Your task to perform on an android device: uninstall "Instagram" Image 0: 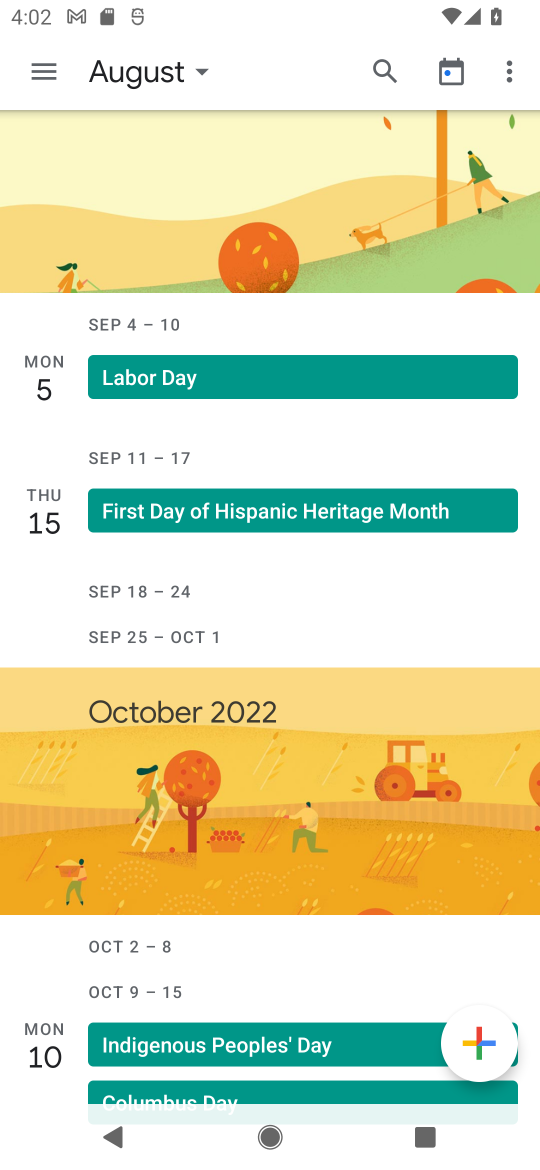
Step 0: press home button
Your task to perform on an android device: uninstall "Instagram" Image 1: 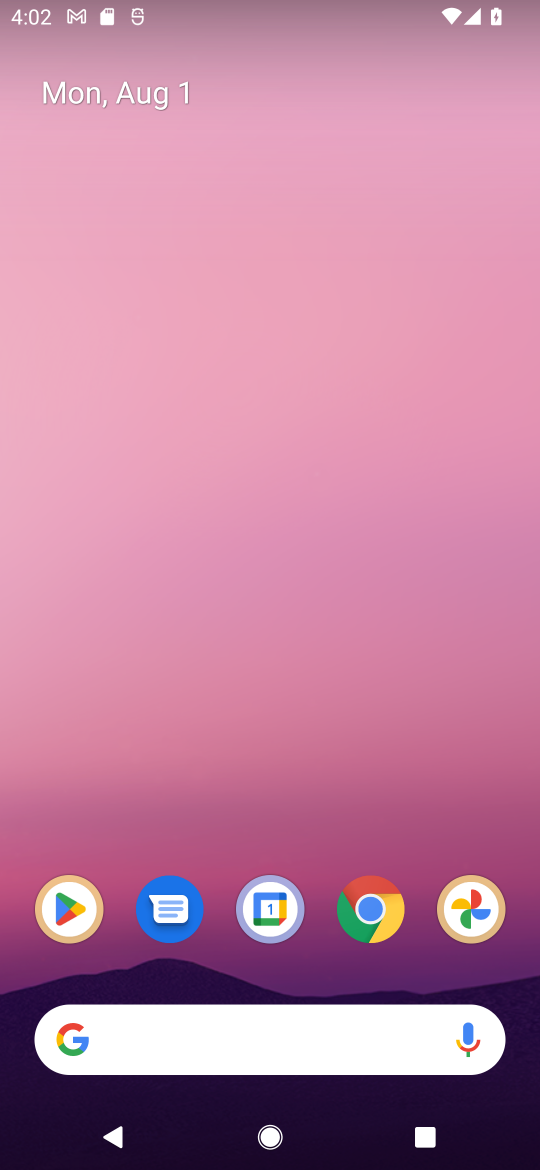
Step 1: click (77, 902)
Your task to perform on an android device: uninstall "Instagram" Image 2: 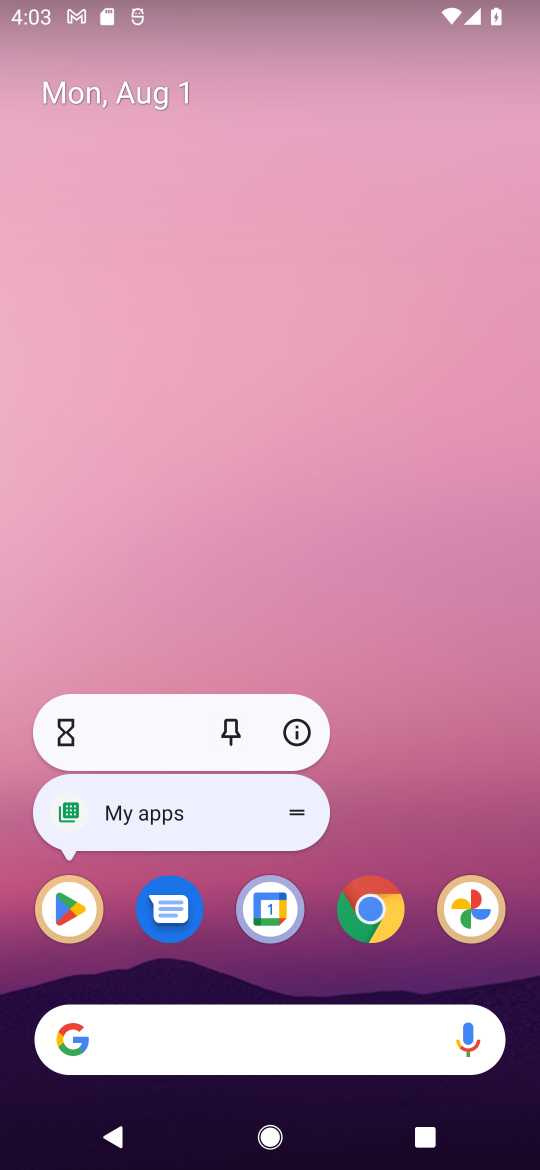
Step 2: click (77, 898)
Your task to perform on an android device: uninstall "Instagram" Image 3: 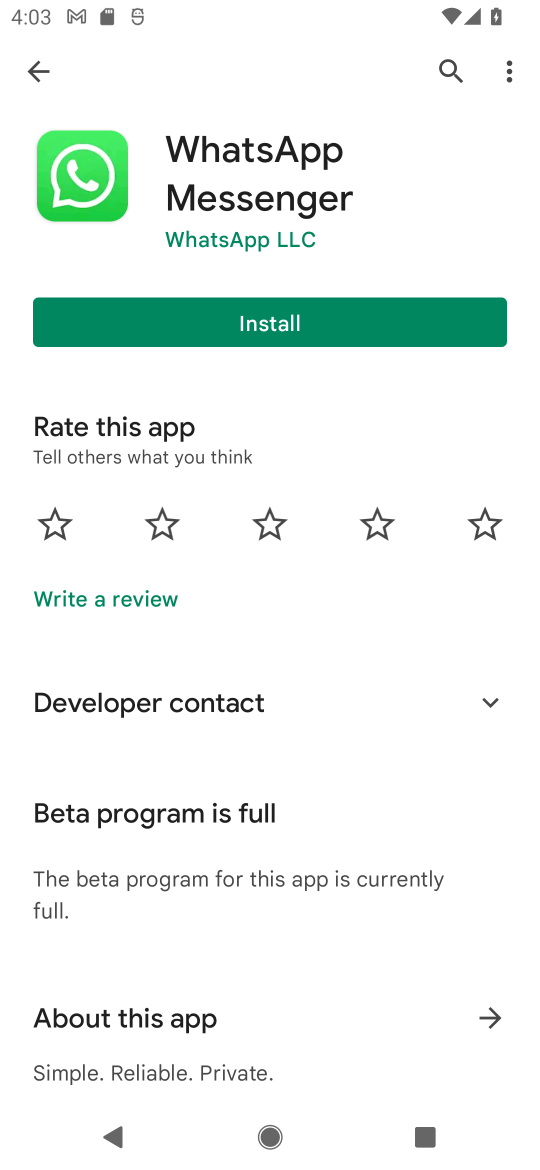
Step 3: click (37, 78)
Your task to perform on an android device: uninstall "Instagram" Image 4: 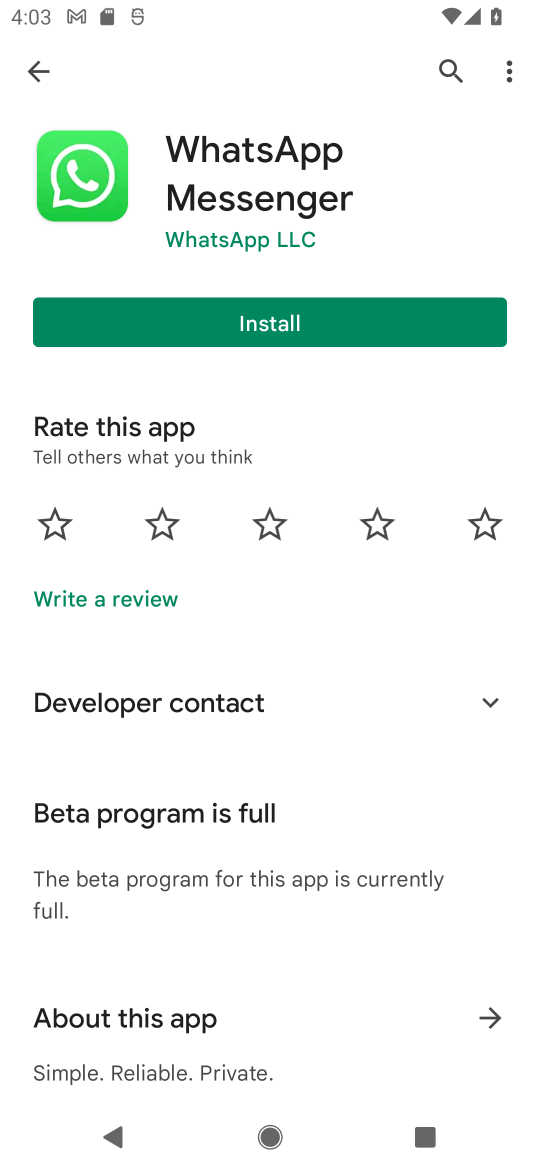
Step 4: click (44, 78)
Your task to perform on an android device: uninstall "Instagram" Image 5: 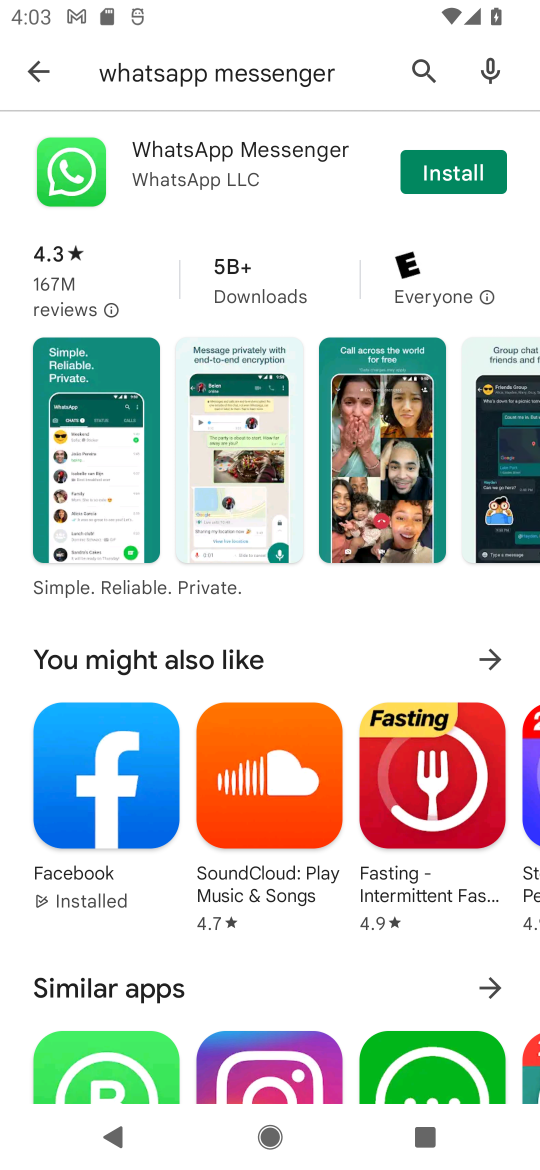
Step 5: click (238, 82)
Your task to perform on an android device: uninstall "Instagram" Image 6: 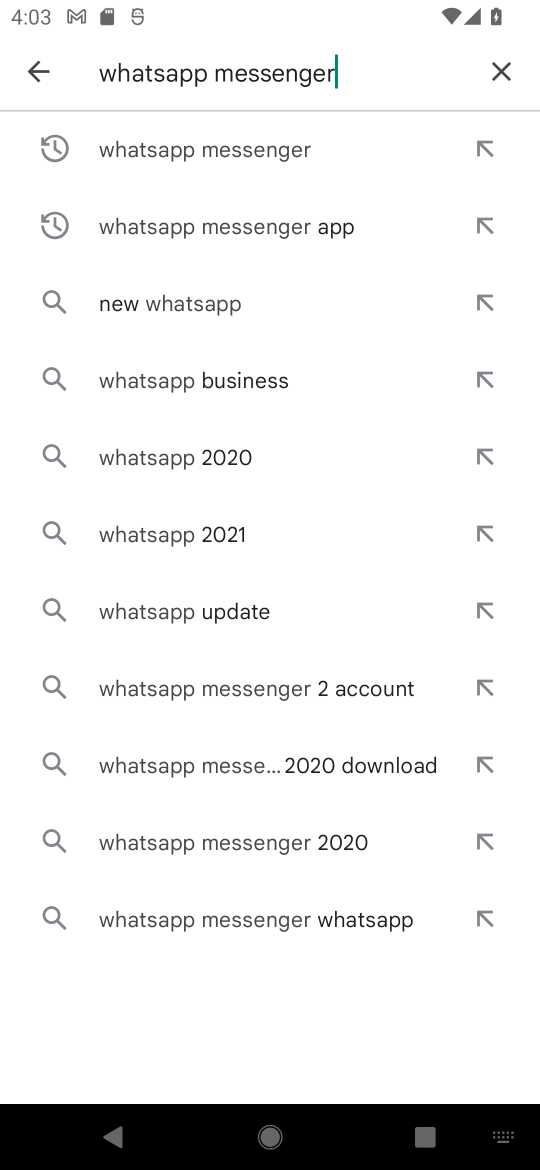
Step 6: click (495, 64)
Your task to perform on an android device: uninstall "Instagram" Image 7: 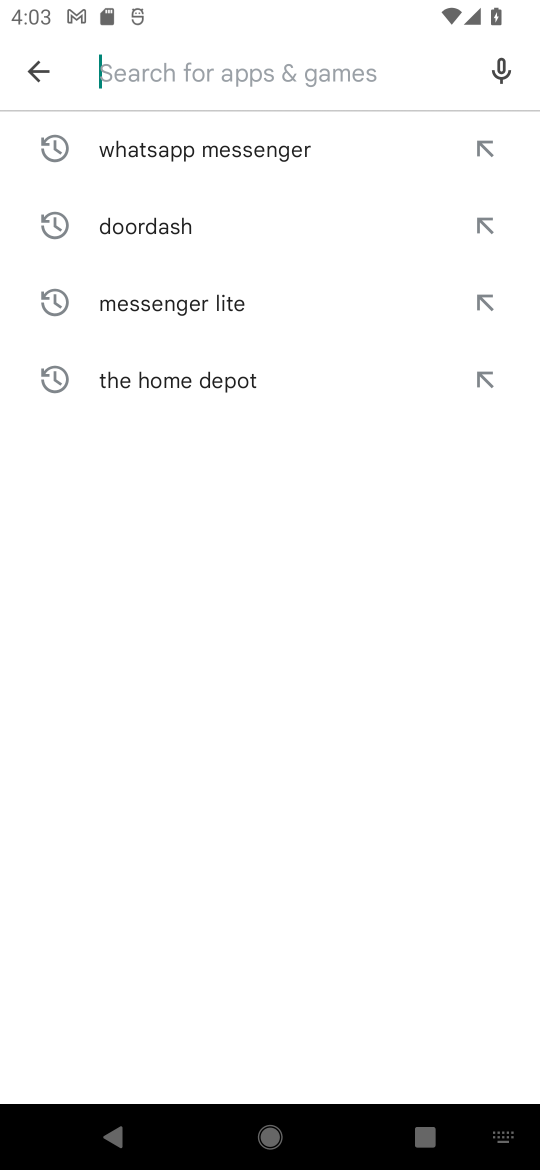
Step 7: type "Instagram"
Your task to perform on an android device: uninstall "Instagram" Image 8: 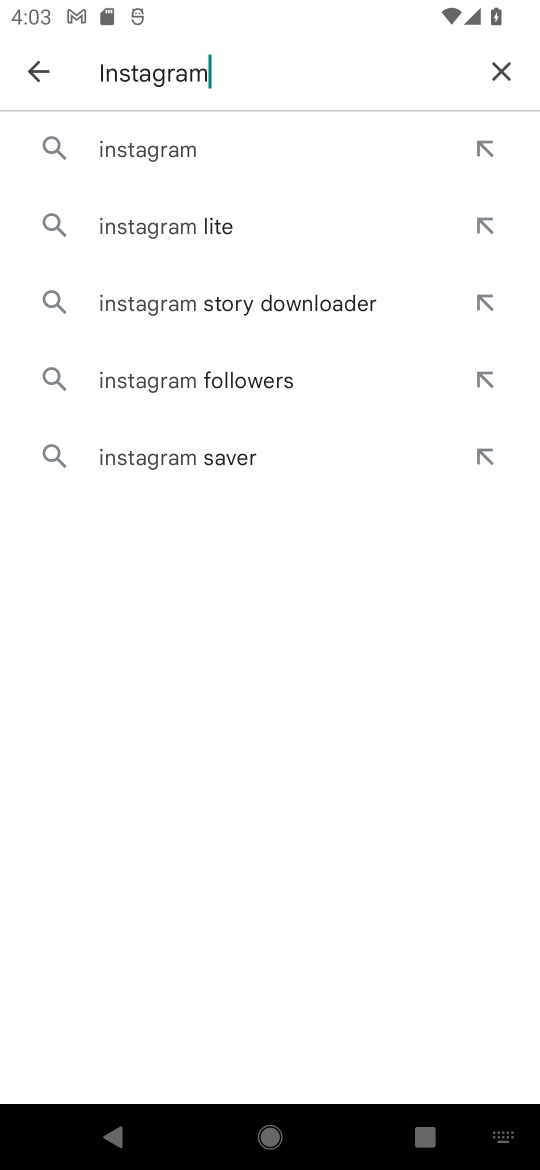
Step 8: click (169, 172)
Your task to perform on an android device: uninstall "Instagram" Image 9: 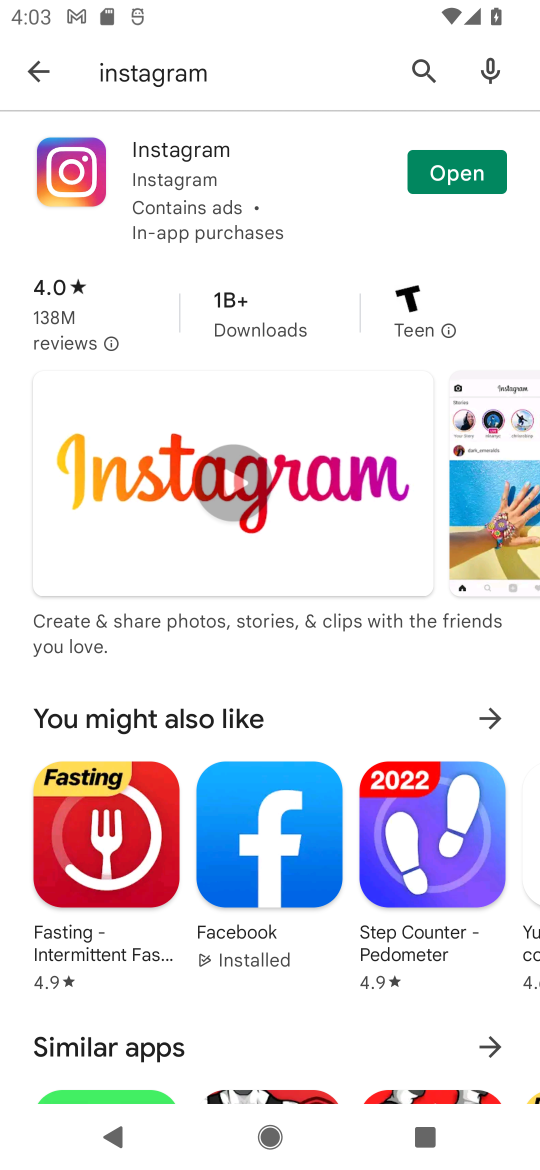
Step 9: click (61, 142)
Your task to perform on an android device: uninstall "Instagram" Image 10: 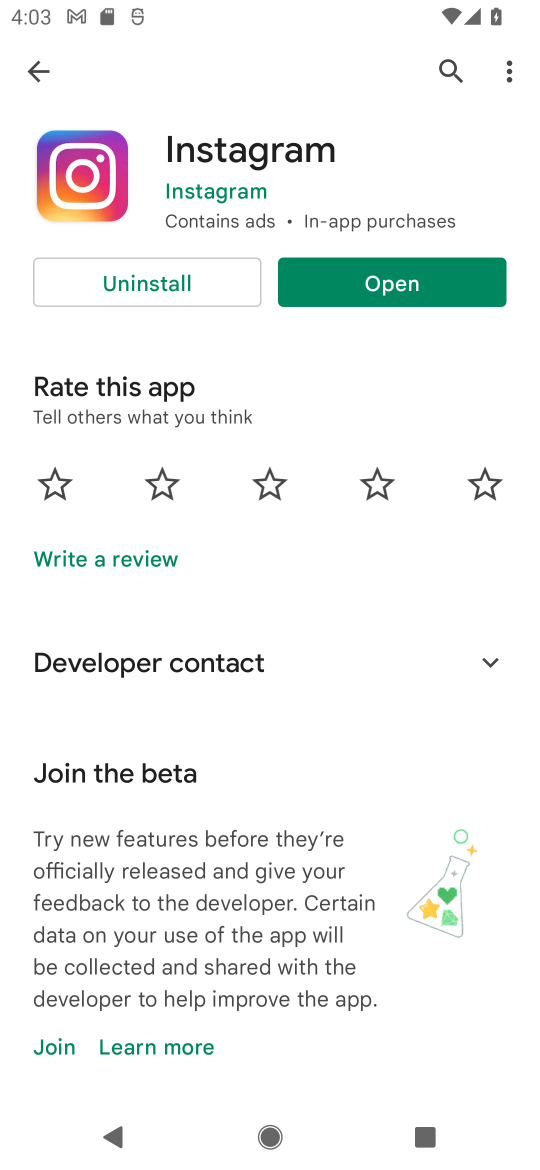
Step 10: click (138, 283)
Your task to perform on an android device: uninstall "Instagram" Image 11: 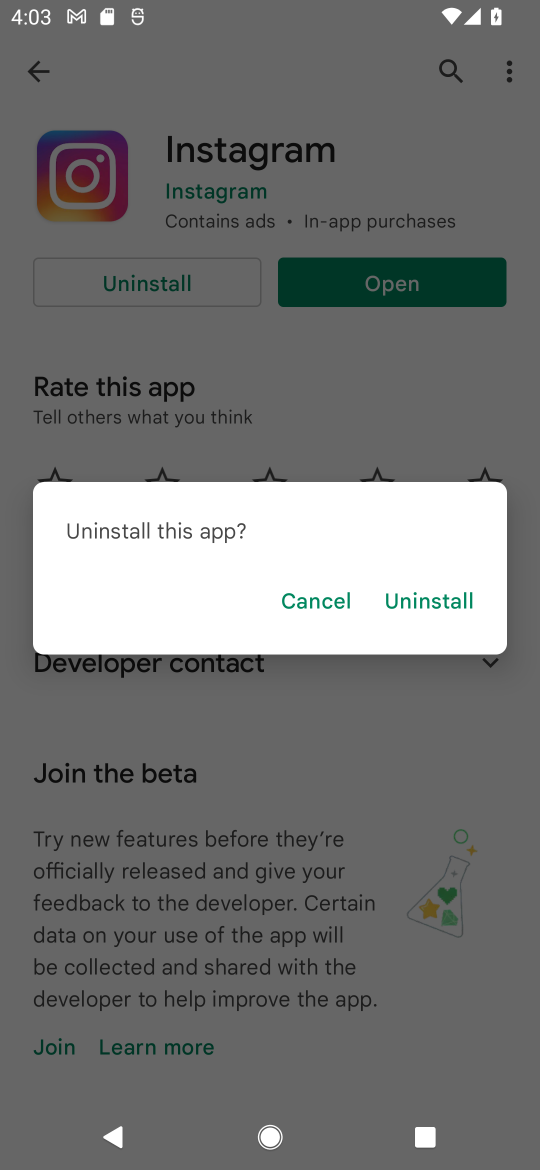
Step 11: click (431, 594)
Your task to perform on an android device: uninstall "Instagram" Image 12: 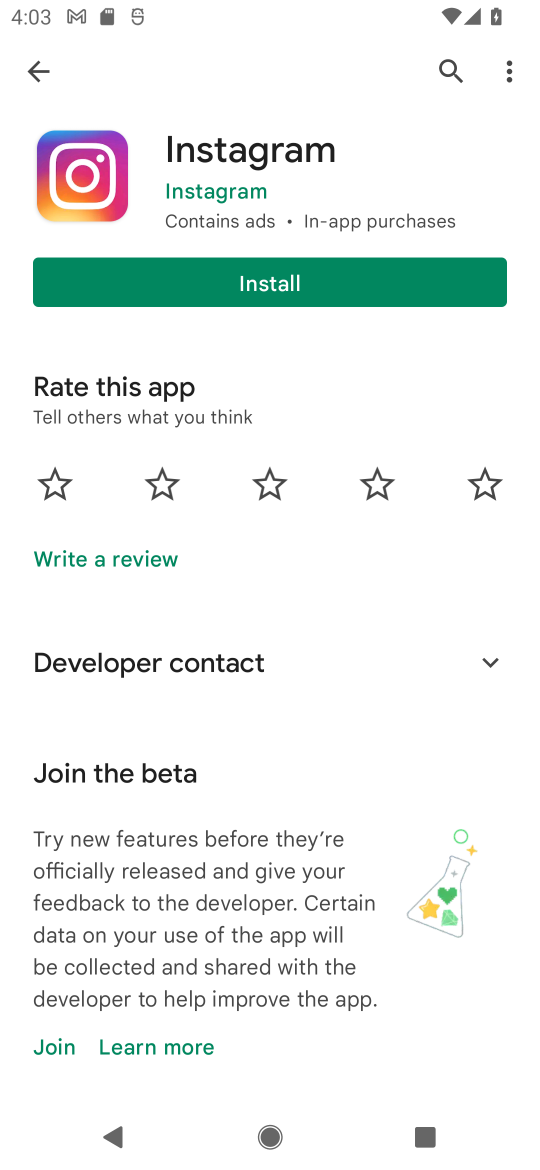
Step 12: task complete